Your task to perform on an android device: Go to calendar. Show me events next week Image 0: 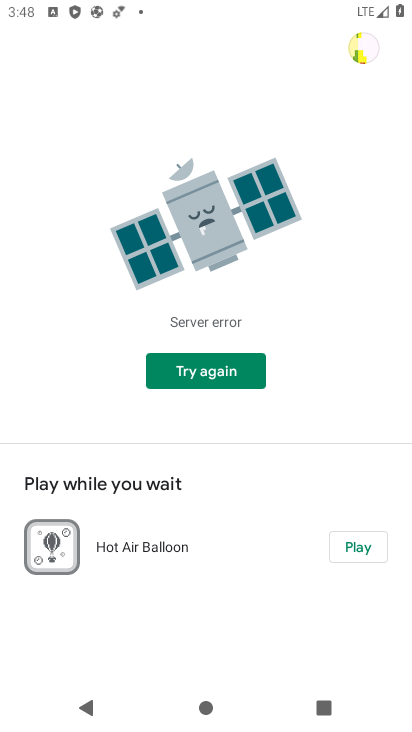
Step 0: press home button
Your task to perform on an android device: Go to calendar. Show me events next week Image 1: 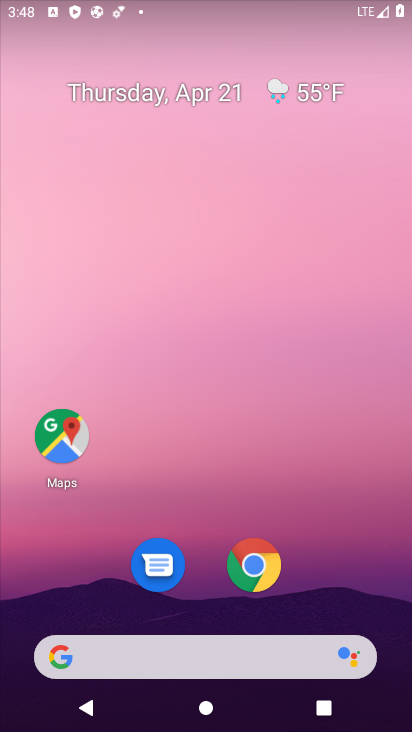
Step 1: drag from (342, 559) to (328, 106)
Your task to perform on an android device: Go to calendar. Show me events next week Image 2: 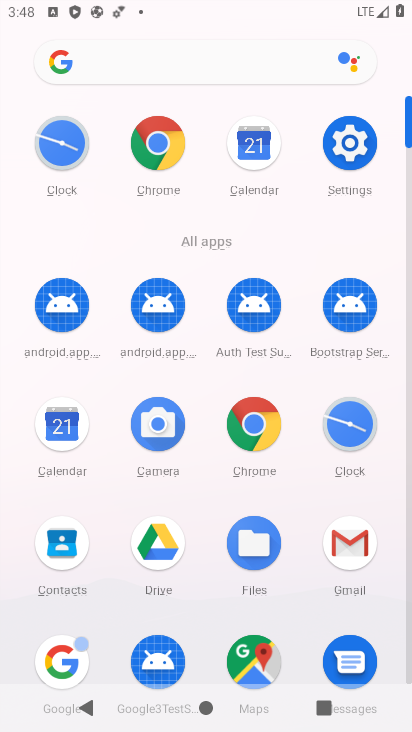
Step 2: click (260, 147)
Your task to perform on an android device: Go to calendar. Show me events next week Image 3: 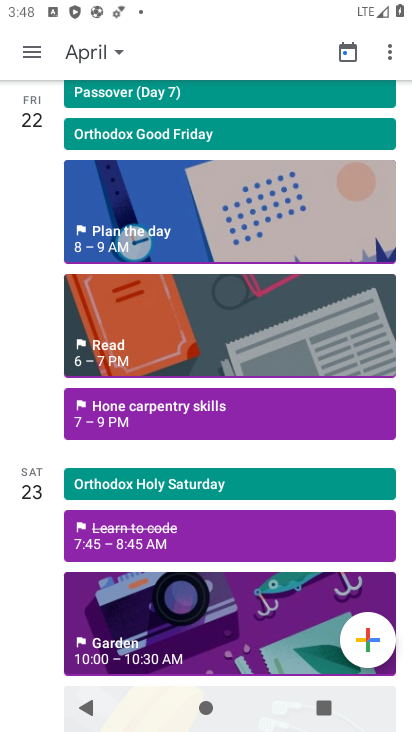
Step 3: click (33, 50)
Your task to perform on an android device: Go to calendar. Show me events next week Image 4: 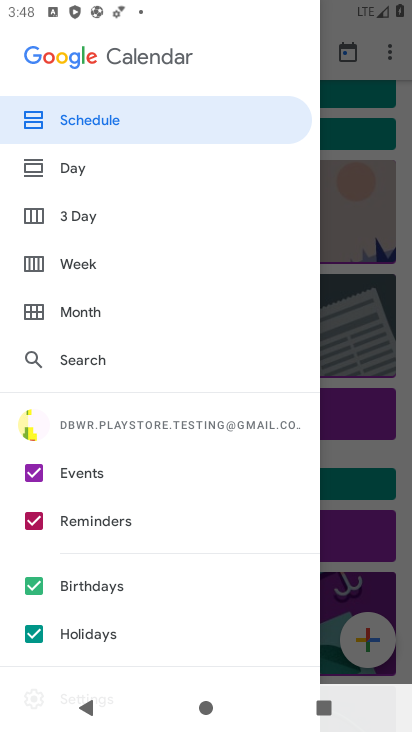
Step 4: click (64, 259)
Your task to perform on an android device: Go to calendar. Show me events next week Image 5: 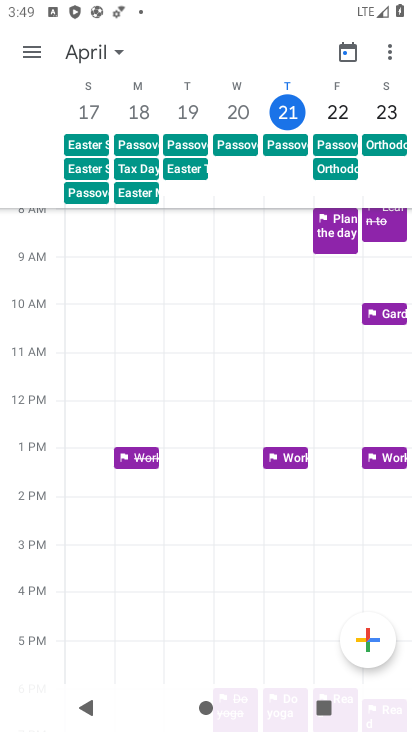
Step 5: task complete